Your task to perform on an android device: Go to battery settings Image 0: 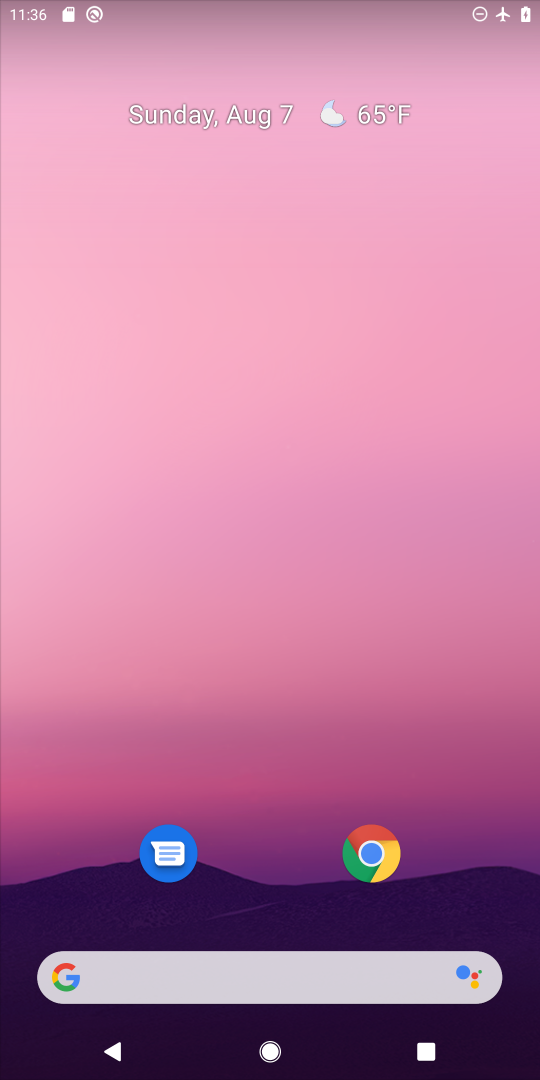
Step 0: click (279, 347)
Your task to perform on an android device: Go to battery settings Image 1: 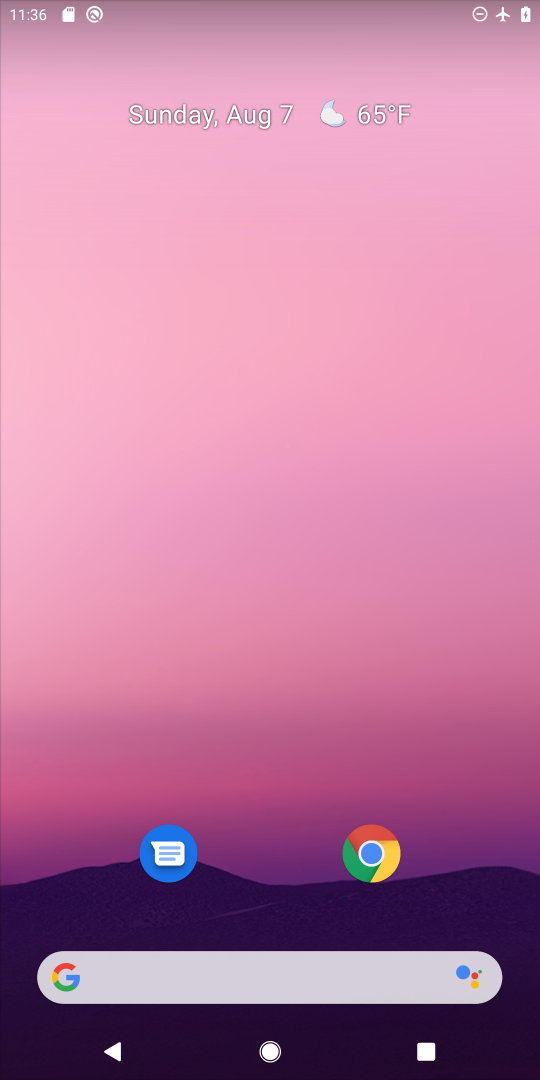
Step 1: drag from (274, 843) to (252, 150)
Your task to perform on an android device: Go to battery settings Image 2: 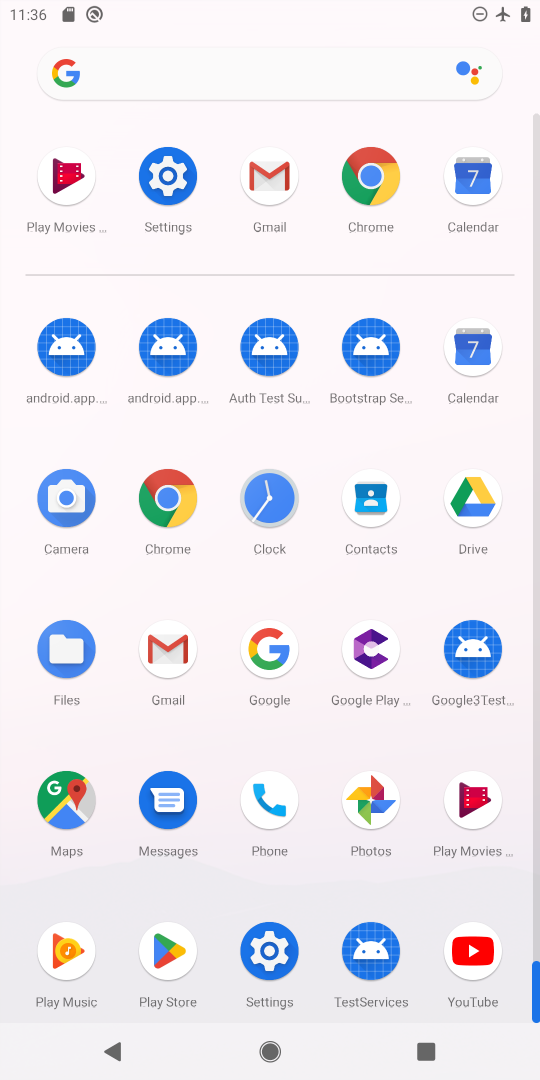
Step 2: click (158, 177)
Your task to perform on an android device: Go to battery settings Image 3: 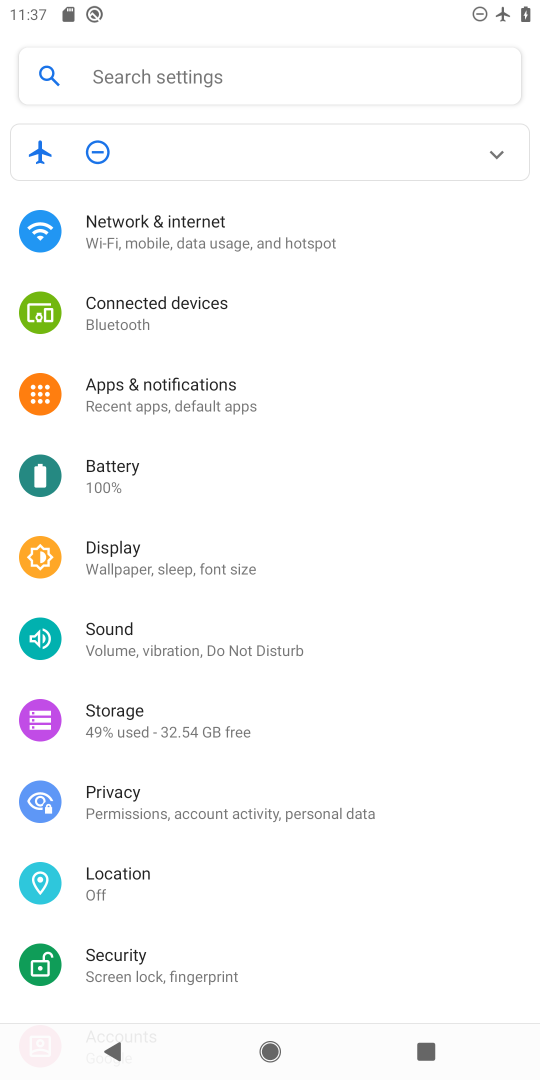
Step 3: drag from (178, 835) to (181, 519)
Your task to perform on an android device: Go to battery settings Image 4: 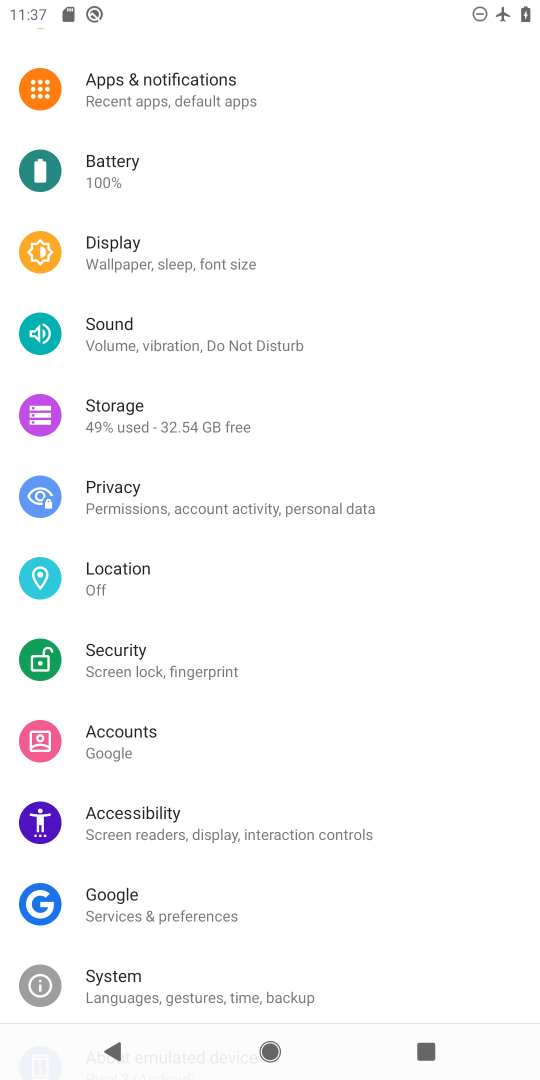
Step 4: click (148, 460)
Your task to perform on an android device: Go to battery settings Image 5: 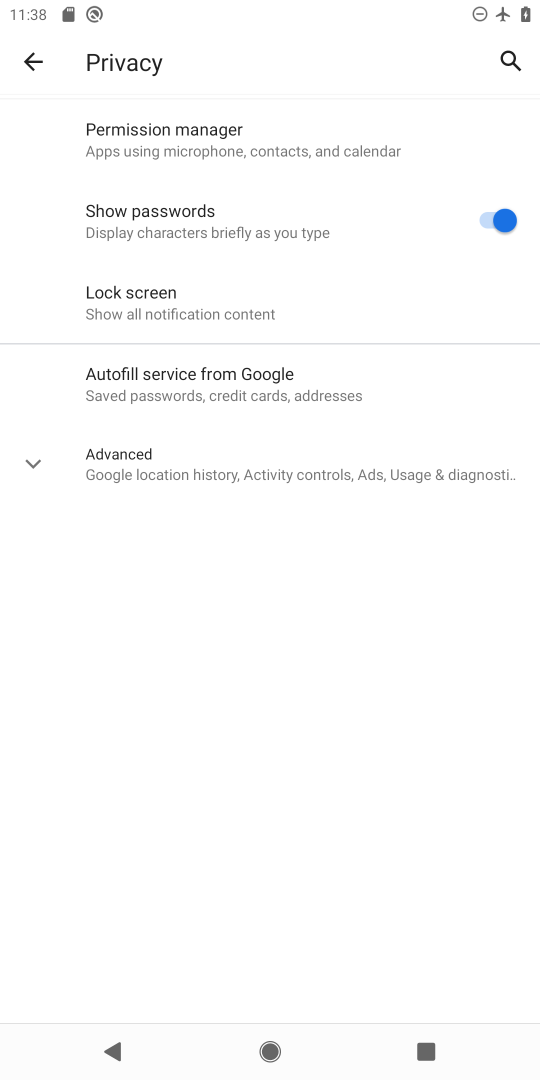
Step 5: task complete